Your task to perform on an android device: Search for sushi restaurants on Maps Image 0: 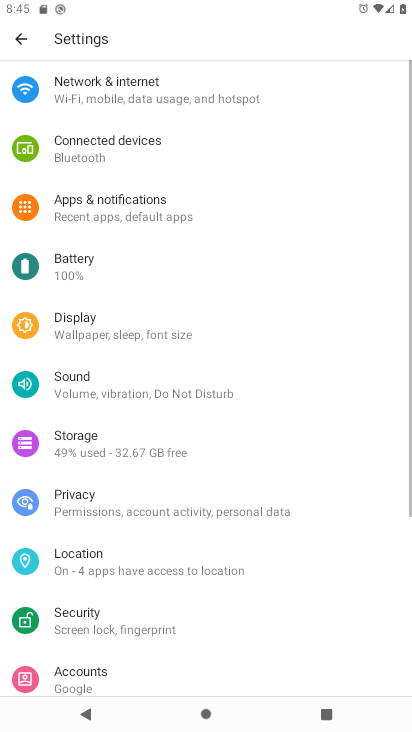
Step 0: press home button
Your task to perform on an android device: Search for sushi restaurants on Maps Image 1: 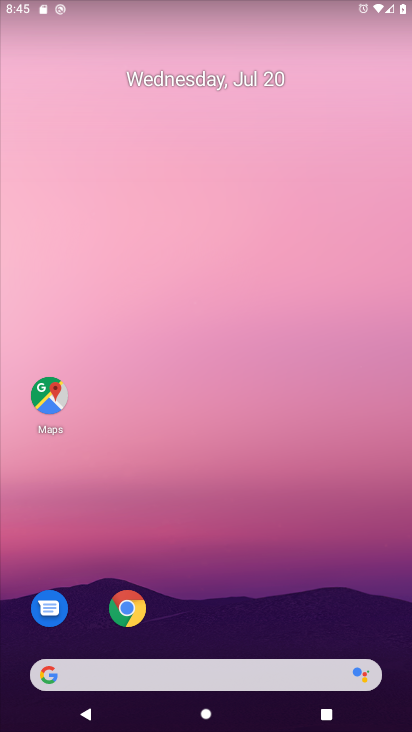
Step 1: drag from (194, 621) to (190, 230)
Your task to perform on an android device: Search for sushi restaurants on Maps Image 2: 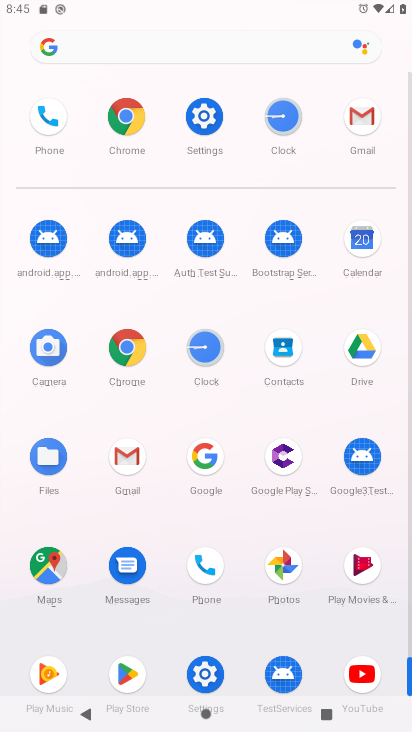
Step 2: click (45, 567)
Your task to perform on an android device: Search for sushi restaurants on Maps Image 3: 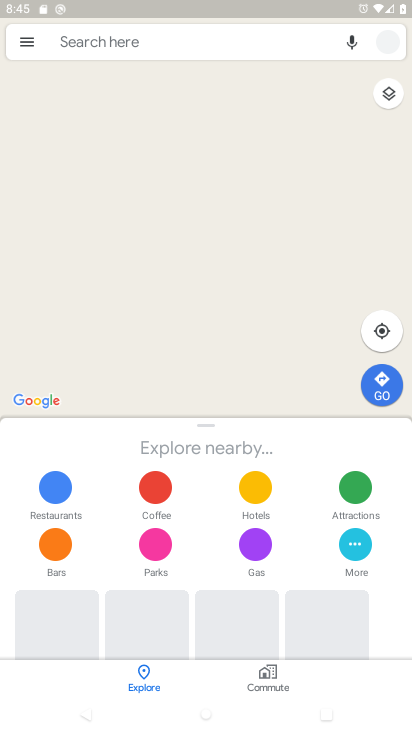
Step 3: click (200, 28)
Your task to perform on an android device: Search for sushi restaurants on Maps Image 4: 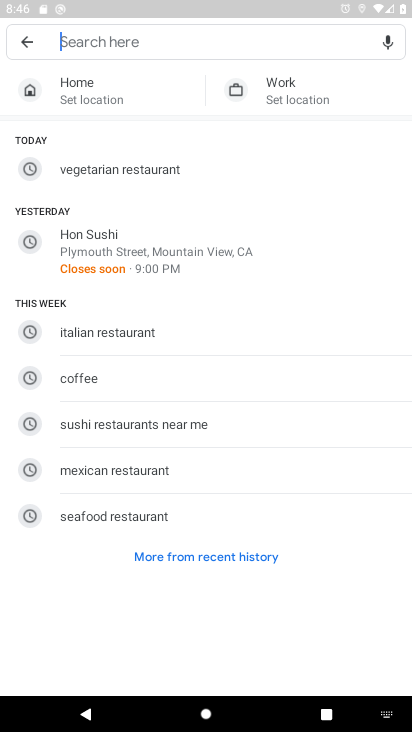
Step 4: click (209, 33)
Your task to perform on an android device: Search for sushi restaurants on Maps Image 5: 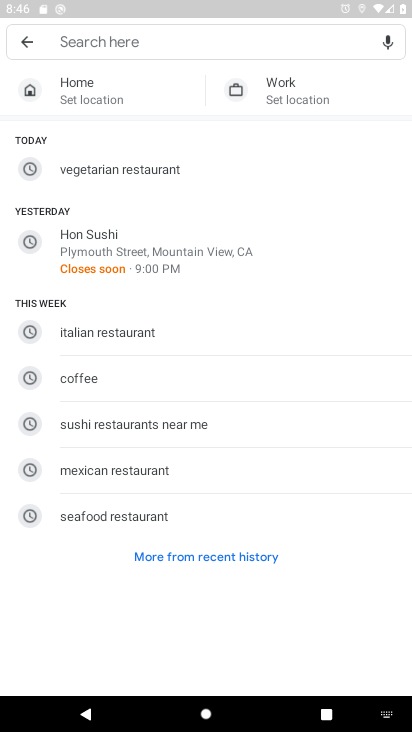
Step 5: type "sushi restaurants  "
Your task to perform on an android device: Search for sushi restaurants on Maps Image 6: 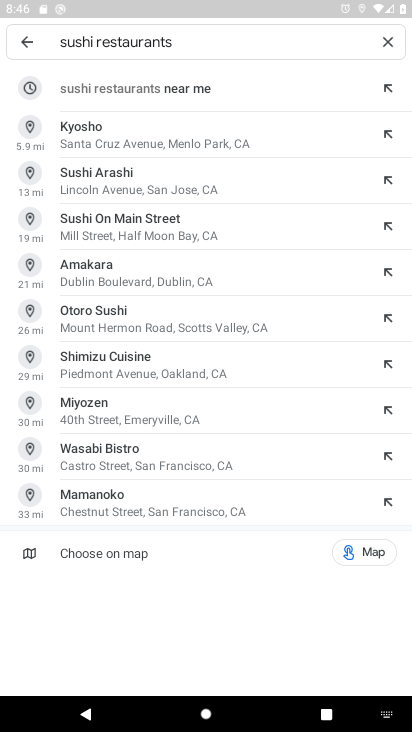
Step 6: click (155, 84)
Your task to perform on an android device: Search for sushi restaurants on Maps Image 7: 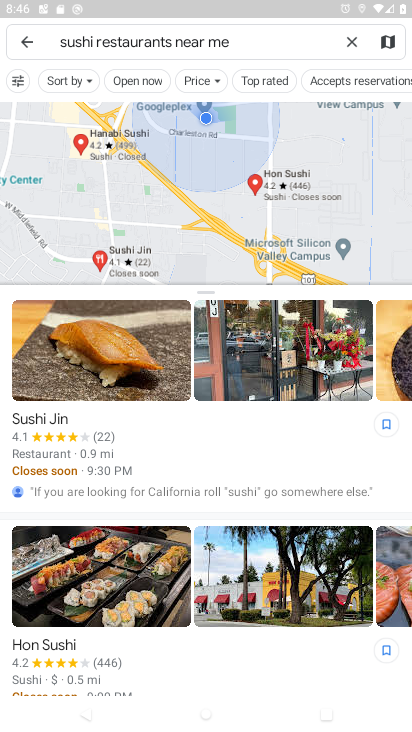
Step 7: task complete